Your task to perform on an android device: create a new album in the google photos Image 0: 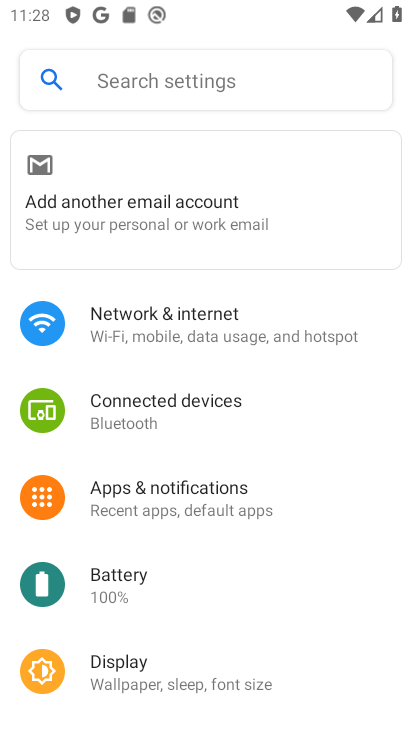
Step 0: press back button
Your task to perform on an android device: create a new album in the google photos Image 1: 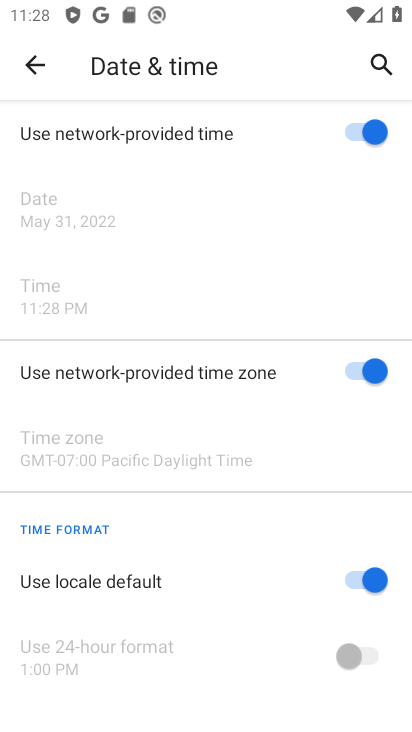
Step 1: press back button
Your task to perform on an android device: create a new album in the google photos Image 2: 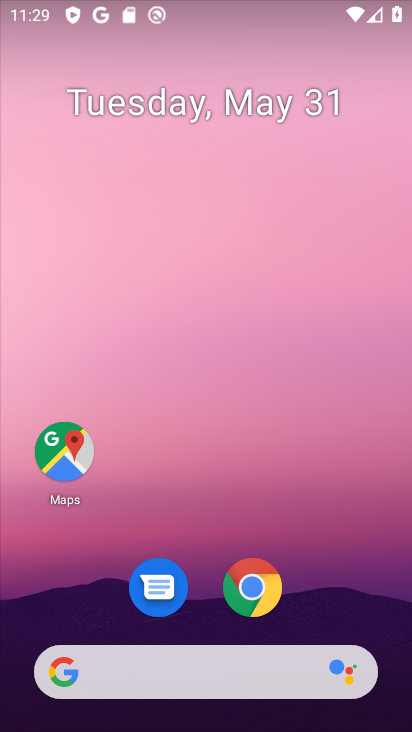
Step 2: drag from (322, 588) to (263, 102)
Your task to perform on an android device: create a new album in the google photos Image 3: 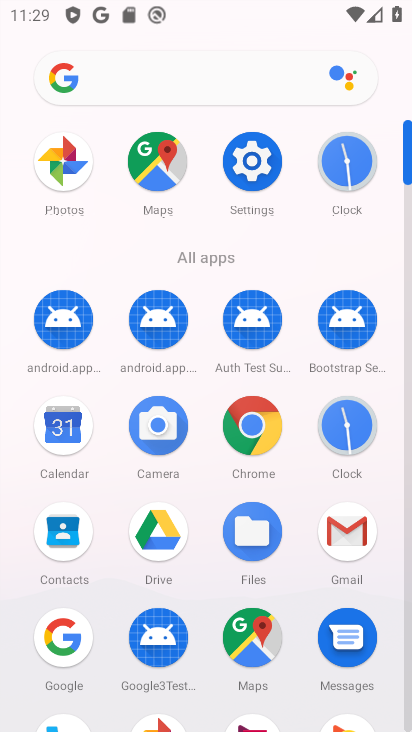
Step 3: click (64, 162)
Your task to perform on an android device: create a new album in the google photos Image 4: 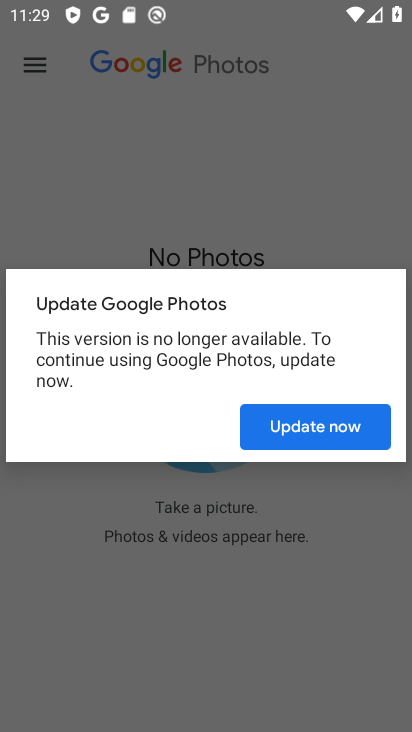
Step 4: click (312, 439)
Your task to perform on an android device: create a new album in the google photos Image 5: 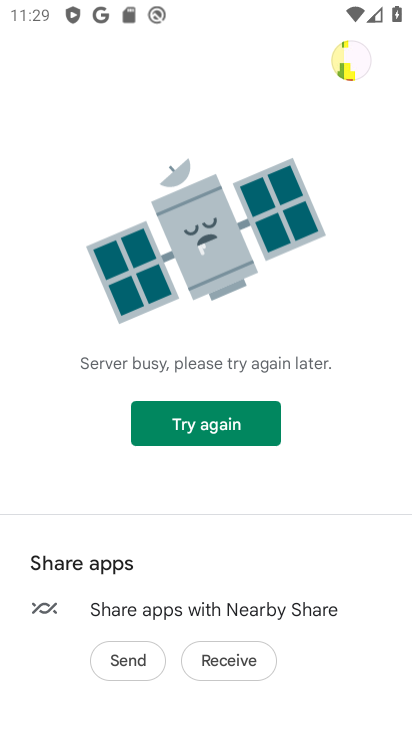
Step 5: click (228, 425)
Your task to perform on an android device: create a new album in the google photos Image 6: 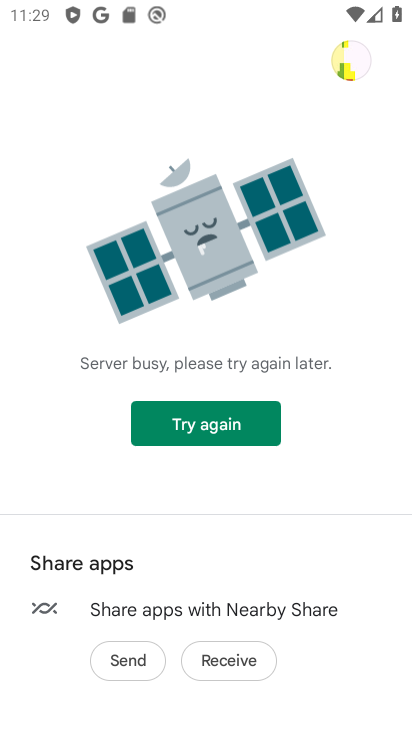
Step 6: click (228, 424)
Your task to perform on an android device: create a new album in the google photos Image 7: 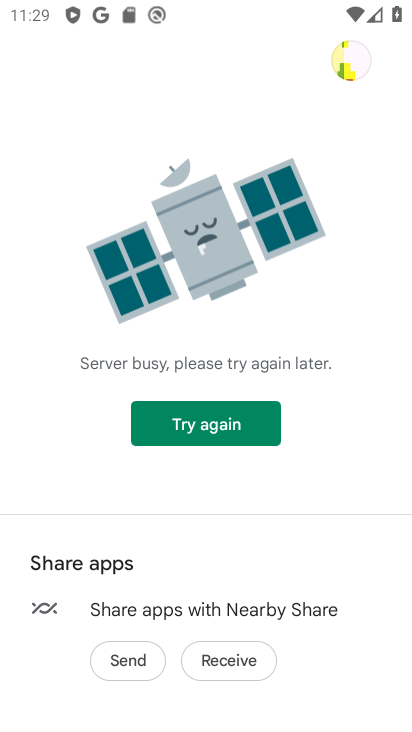
Step 7: task complete